Your task to perform on an android device: Open maps Image 0: 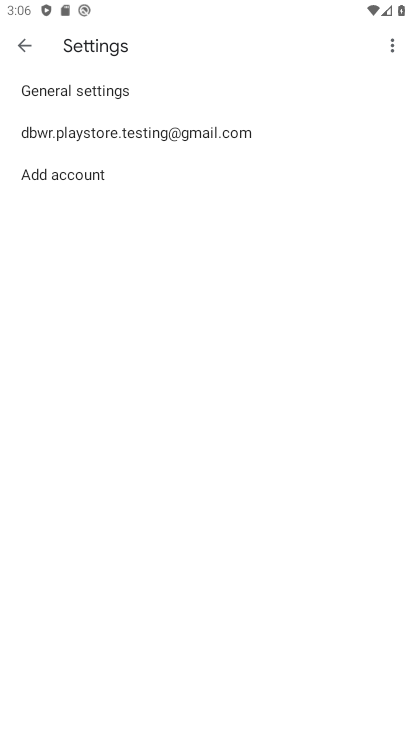
Step 0: press home button
Your task to perform on an android device: Open maps Image 1: 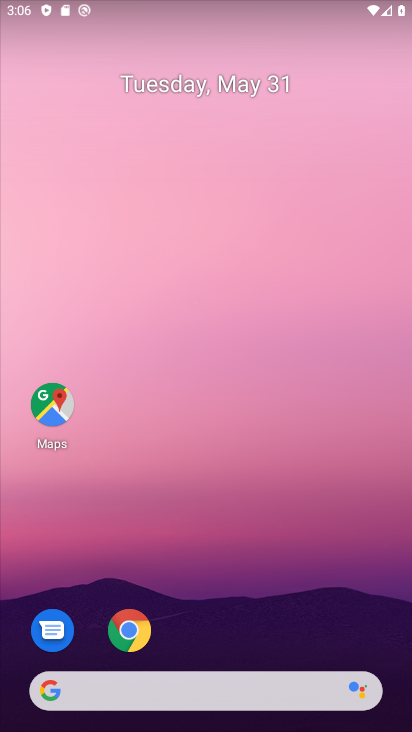
Step 1: click (53, 409)
Your task to perform on an android device: Open maps Image 2: 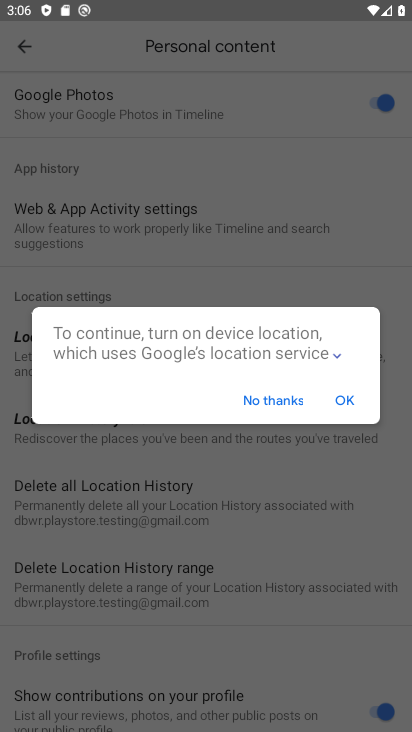
Step 2: click (355, 400)
Your task to perform on an android device: Open maps Image 3: 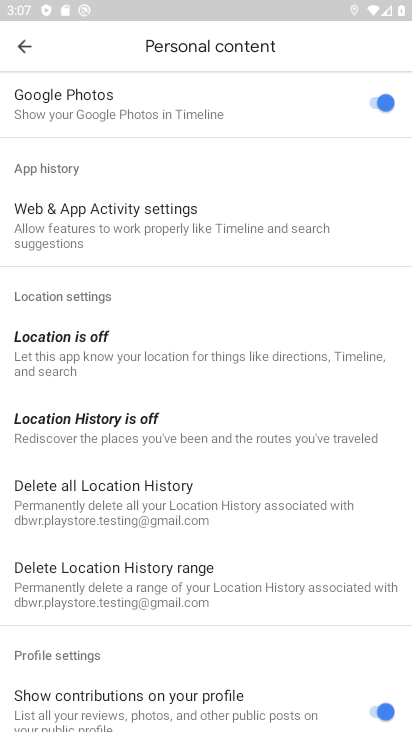
Step 3: click (24, 43)
Your task to perform on an android device: Open maps Image 4: 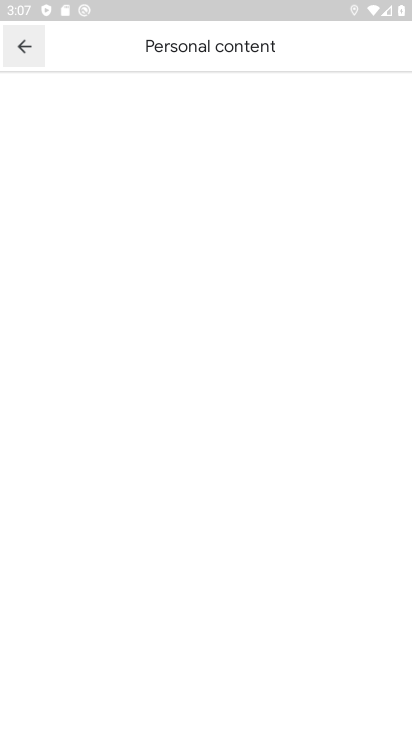
Step 4: click (28, 39)
Your task to perform on an android device: Open maps Image 5: 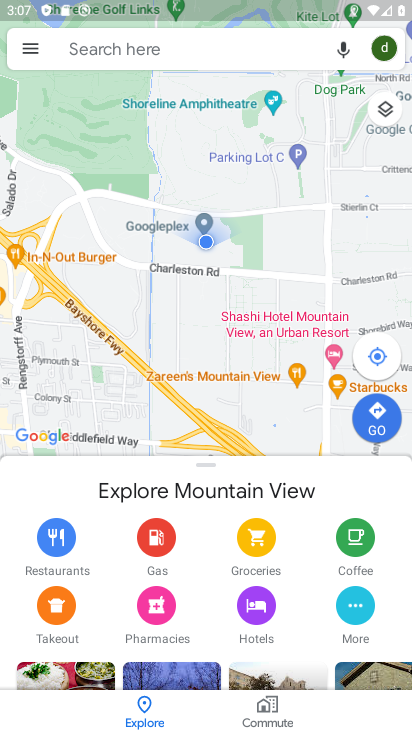
Step 5: task complete